Your task to perform on an android device: toggle location history Image 0: 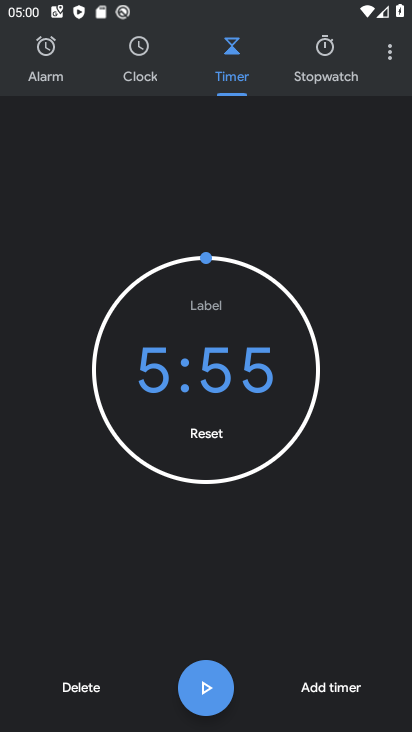
Step 0: drag from (328, 624) to (233, 153)
Your task to perform on an android device: toggle location history Image 1: 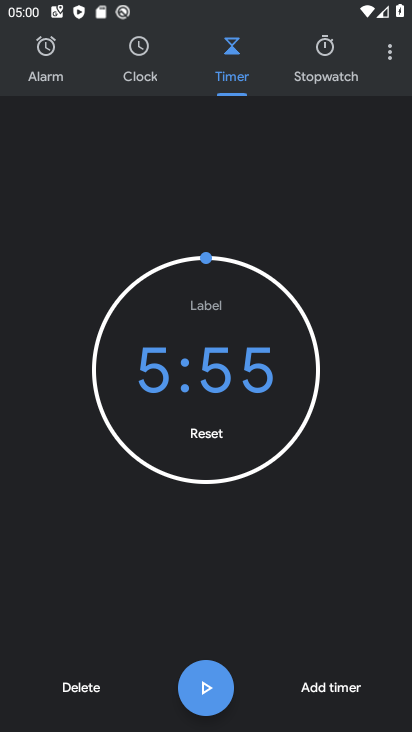
Step 1: click (394, 58)
Your task to perform on an android device: toggle location history Image 2: 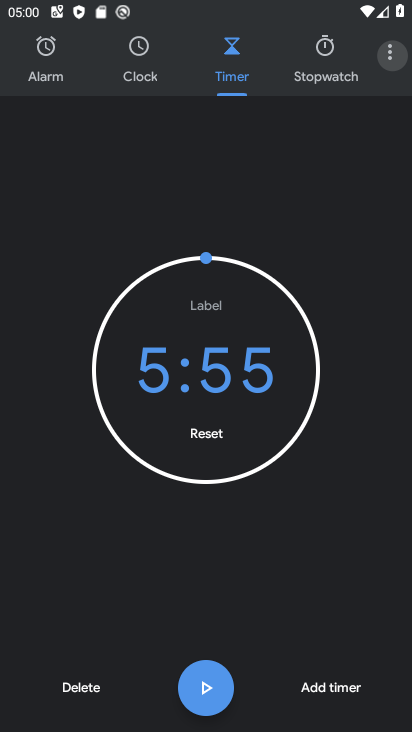
Step 2: click (394, 58)
Your task to perform on an android device: toggle location history Image 3: 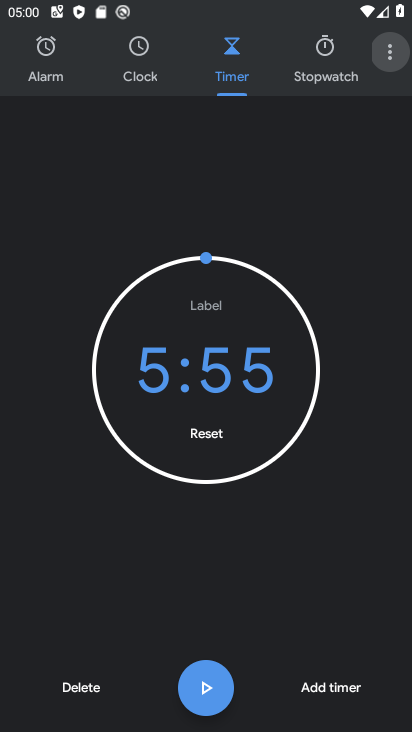
Step 3: click (394, 58)
Your task to perform on an android device: toggle location history Image 4: 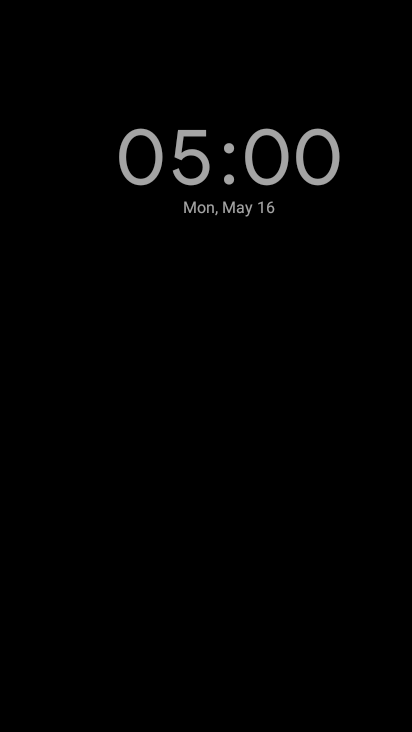
Step 4: press back button
Your task to perform on an android device: toggle location history Image 5: 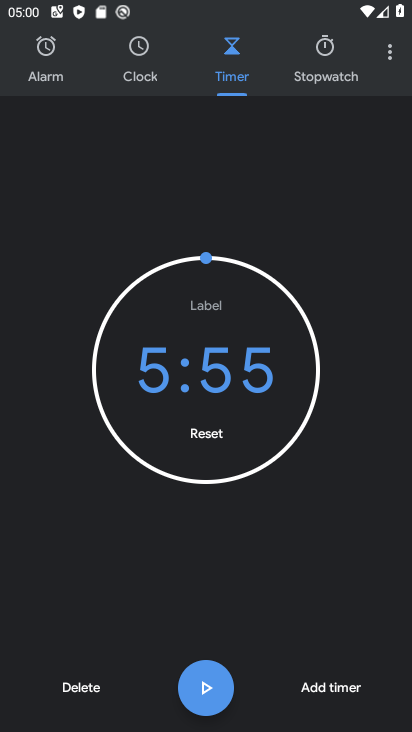
Step 5: click (410, 48)
Your task to perform on an android device: toggle location history Image 6: 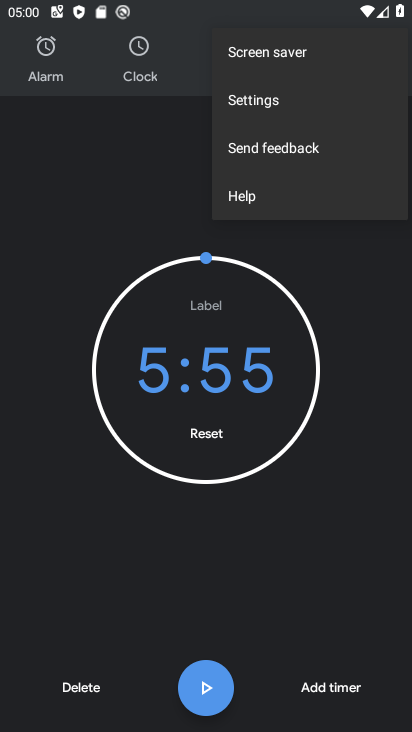
Step 6: click (391, 58)
Your task to perform on an android device: toggle location history Image 7: 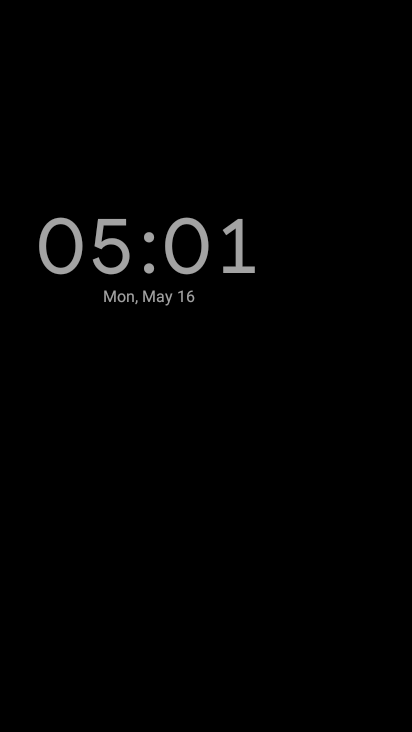
Step 7: press back button
Your task to perform on an android device: toggle location history Image 8: 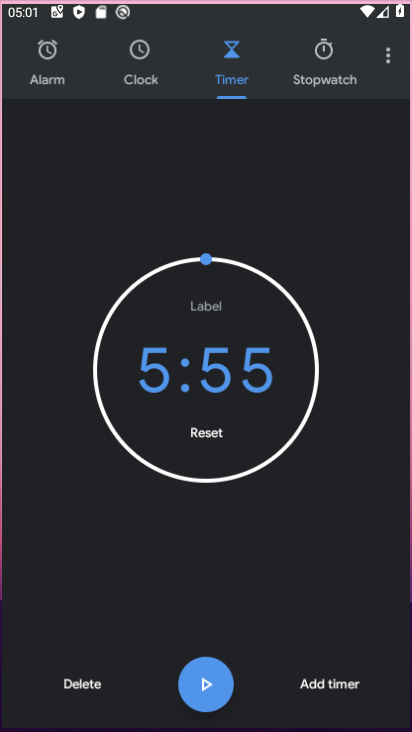
Step 8: drag from (322, 528) to (298, 74)
Your task to perform on an android device: toggle location history Image 9: 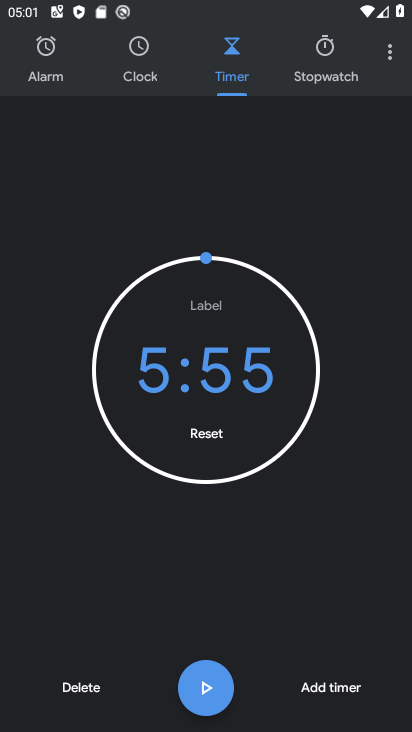
Step 9: click (384, 62)
Your task to perform on an android device: toggle location history Image 10: 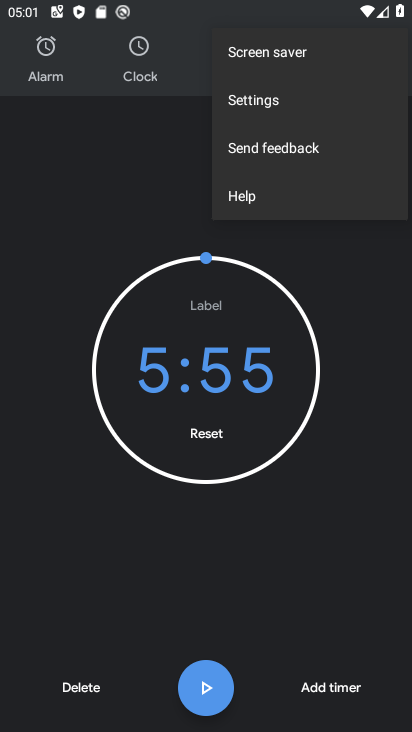
Step 10: click (269, 103)
Your task to perform on an android device: toggle location history Image 11: 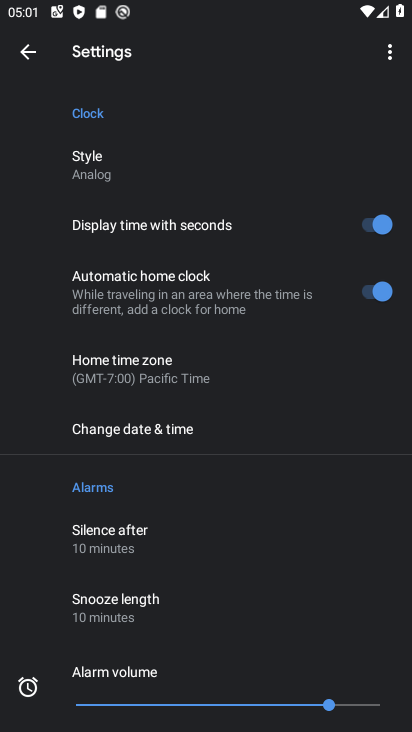
Step 11: press back button
Your task to perform on an android device: toggle location history Image 12: 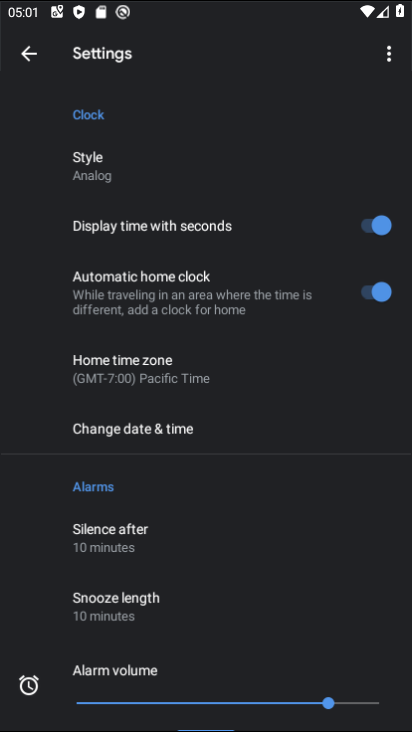
Step 12: press back button
Your task to perform on an android device: toggle location history Image 13: 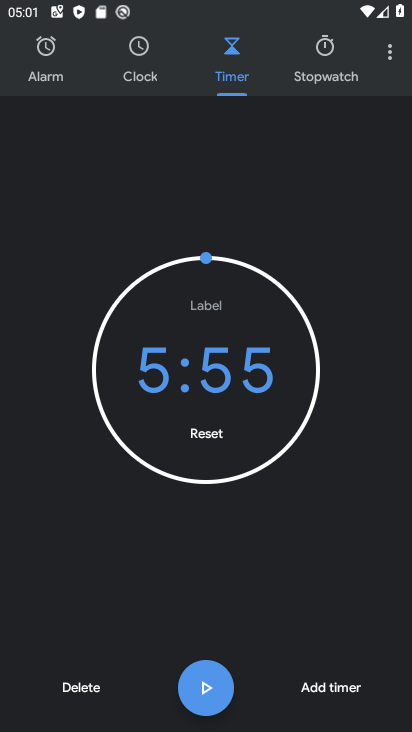
Step 13: press back button
Your task to perform on an android device: toggle location history Image 14: 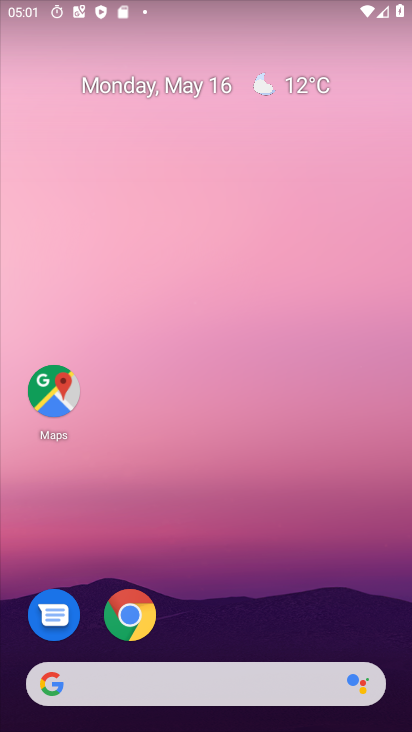
Step 14: drag from (286, 655) to (210, 2)
Your task to perform on an android device: toggle location history Image 15: 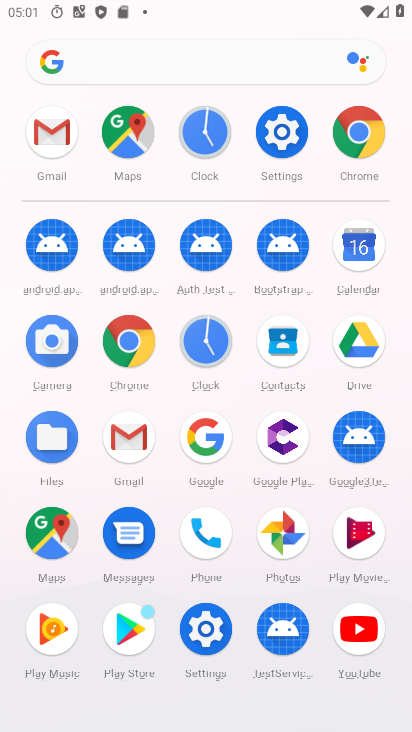
Step 15: click (55, 531)
Your task to perform on an android device: toggle location history Image 16: 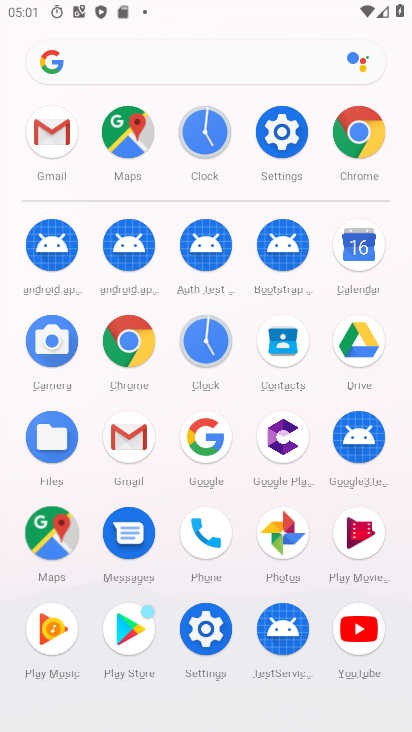
Step 16: click (55, 531)
Your task to perform on an android device: toggle location history Image 17: 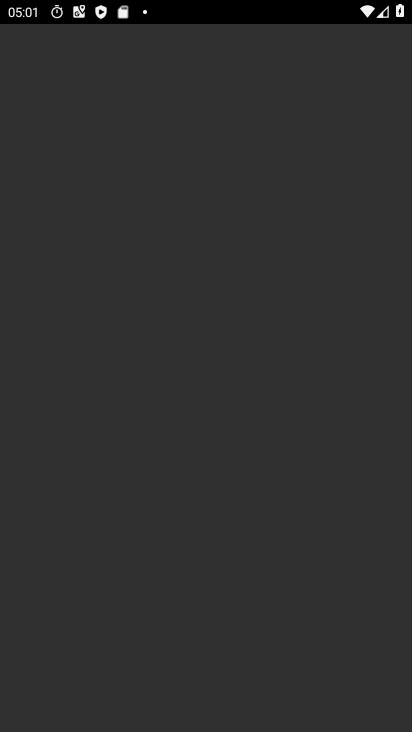
Step 17: click (55, 531)
Your task to perform on an android device: toggle location history Image 18: 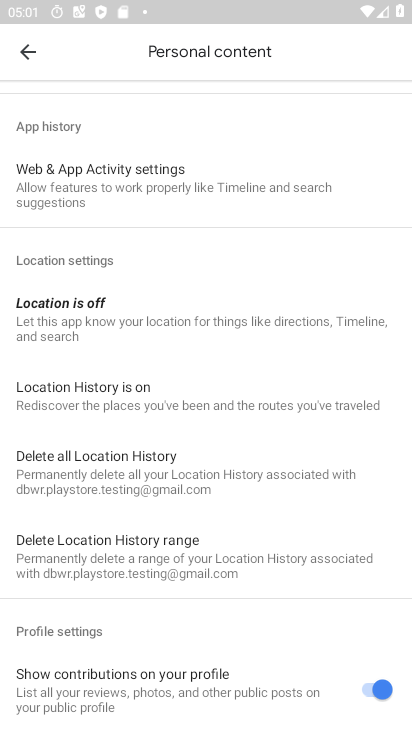
Step 18: click (99, 383)
Your task to perform on an android device: toggle location history Image 19: 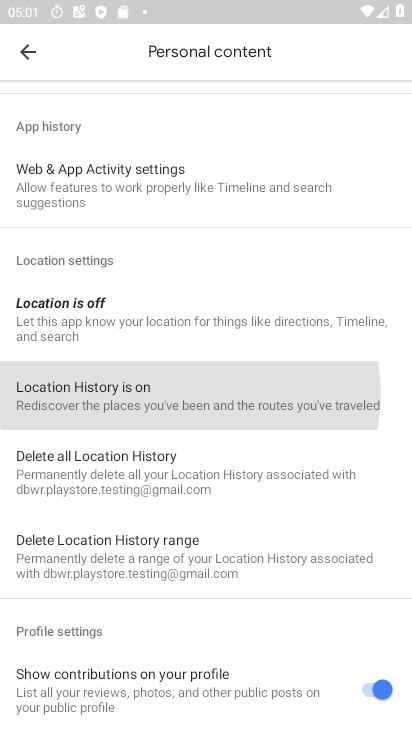
Step 19: click (98, 381)
Your task to perform on an android device: toggle location history Image 20: 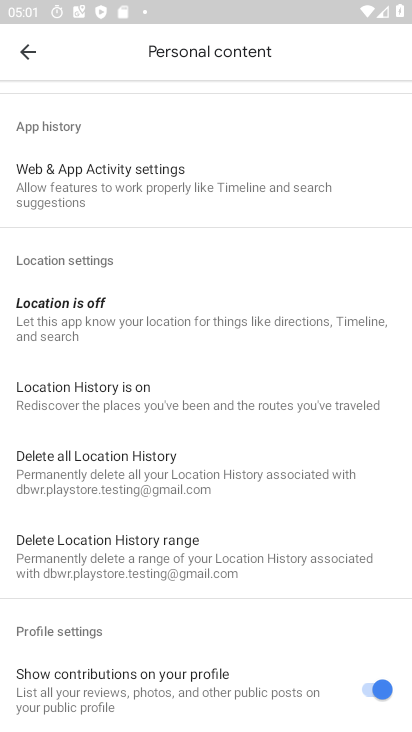
Step 20: click (105, 388)
Your task to perform on an android device: toggle location history Image 21: 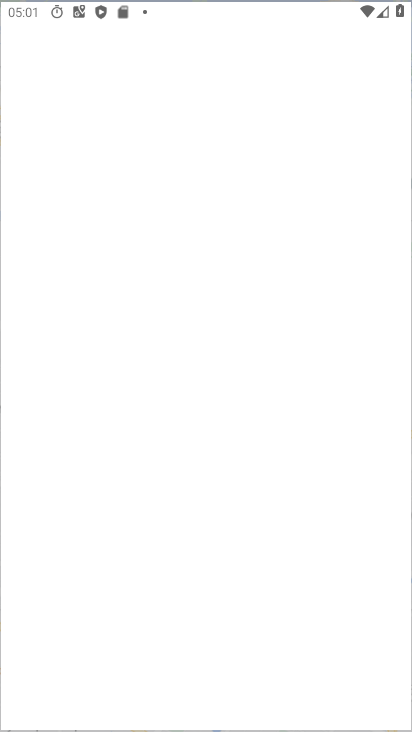
Step 21: click (112, 396)
Your task to perform on an android device: toggle location history Image 22: 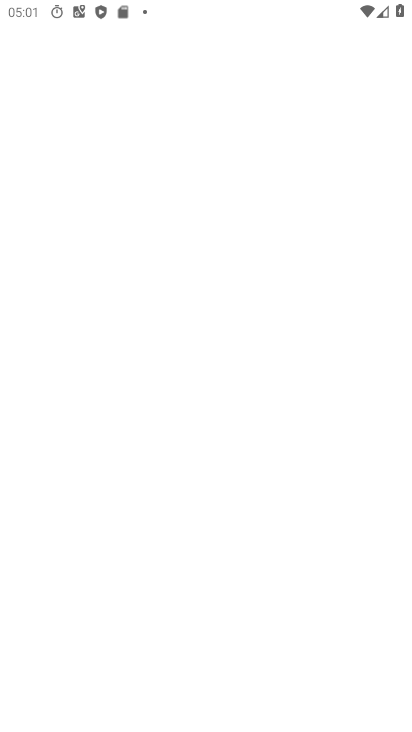
Step 22: click (112, 400)
Your task to perform on an android device: toggle location history Image 23: 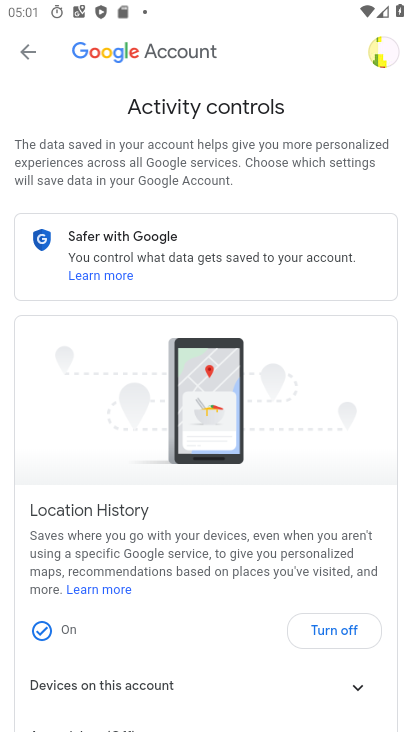
Step 23: drag from (244, 593) to (243, 31)
Your task to perform on an android device: toggle location history Image 24: 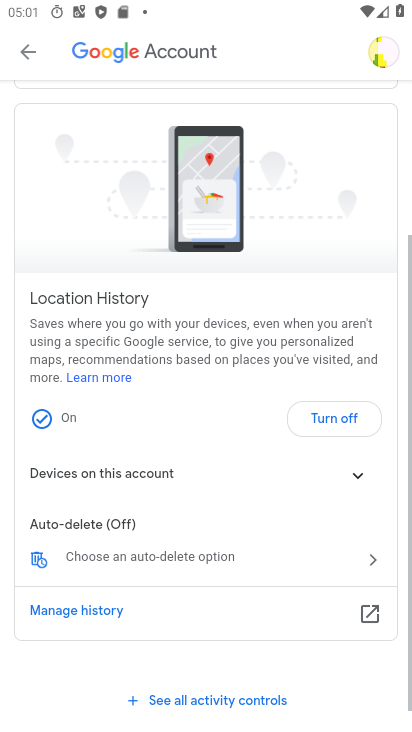
Step 24: drag from (145, 314) to (98, 84)
Your task to perform on an android device: toggle location history Image 25: 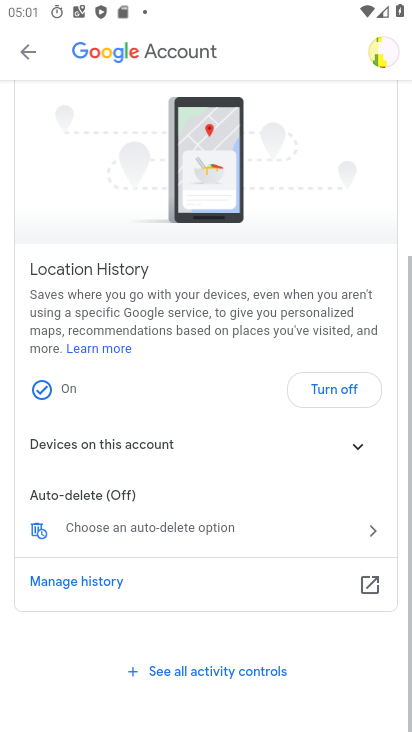
Step 25: drag from (129, 146) to (72, 83)
Your task to perform on an android device: toggle location history Image 26: 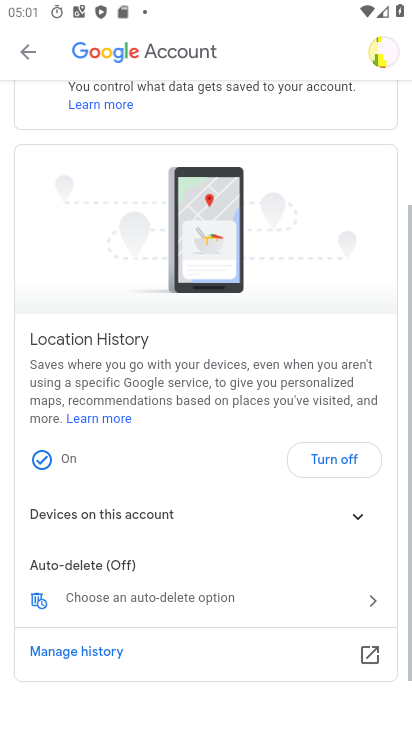
Step 26: drag from (107, 333) to (123, 54)
Your task to perform on an android device: toggle location history Image 27: 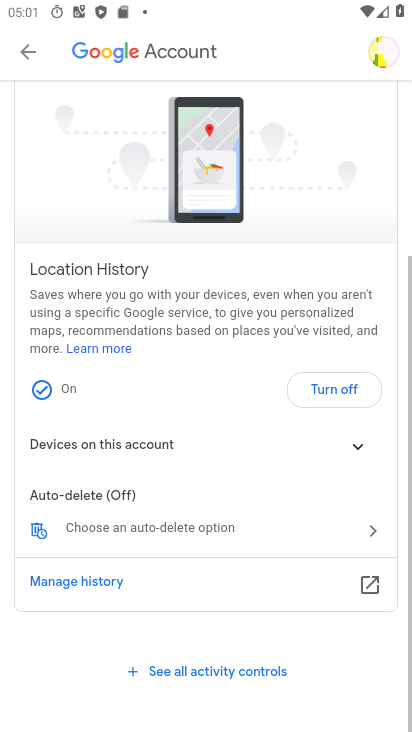
Step 27: drag from (189, 351) to (169, 73)
Your task to perform on an android device: toggle location history Image 28: 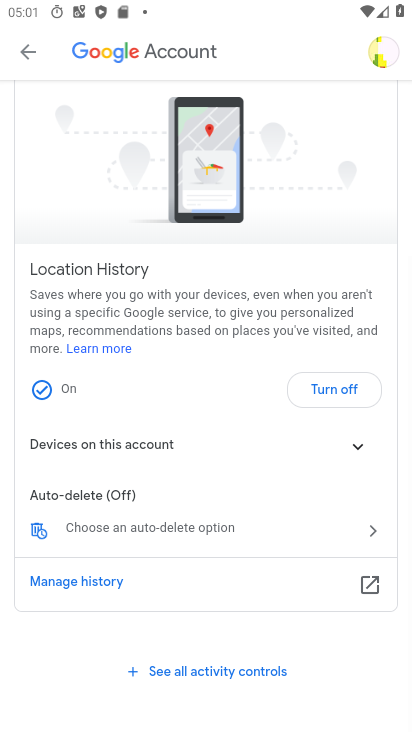
Step 28: drag from (177, 380) to (192, 8)
Your task to perform on an android device: toggle location history Image 29: 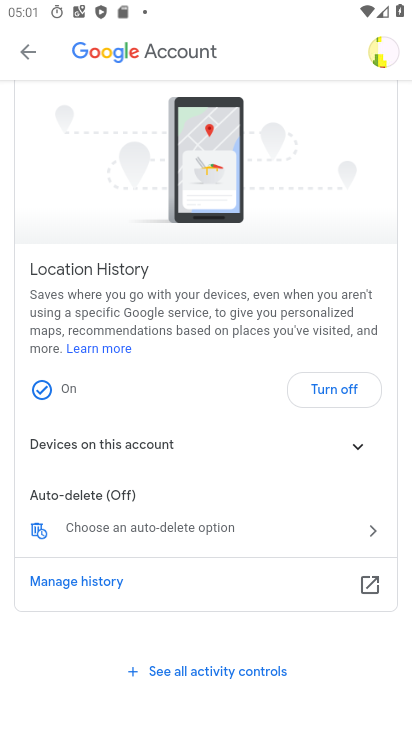
Step 29: drag from (117, 407) to (158, 18)
Your task to perform on an android device: toggle location history Image 30: 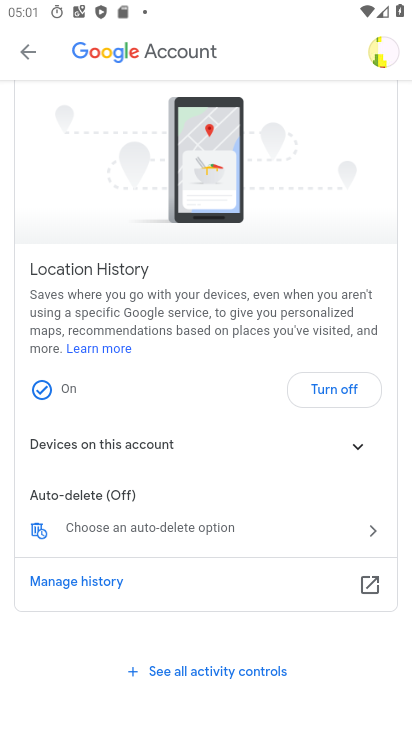
Step 30: click (322, 388)
Your task to perform on an android device: toggle location history Image 31: 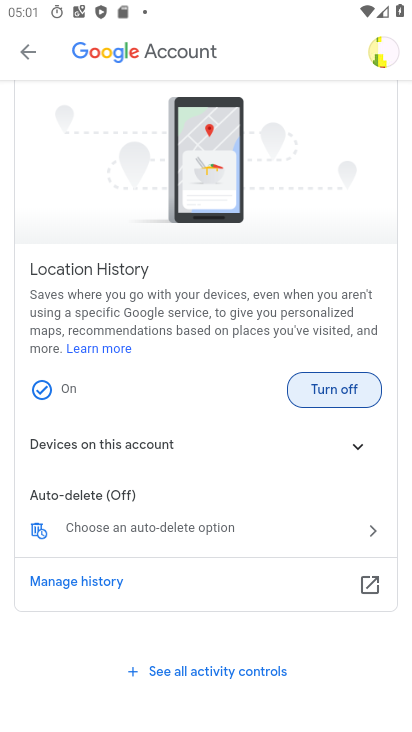
Step 31: click (337, 394)
Your task to perform on an android device: toggle location history Image 32: 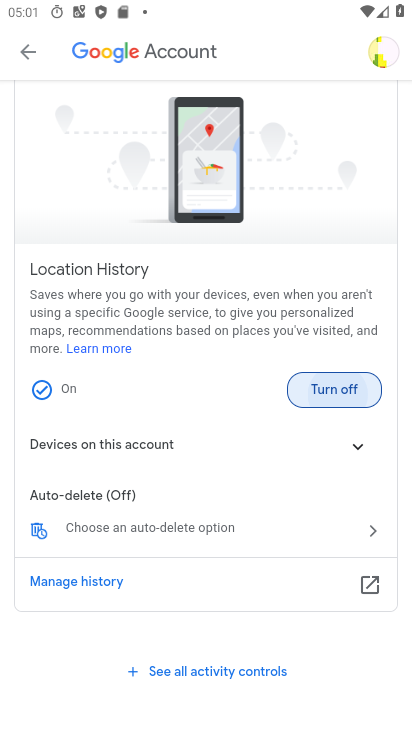
Step 32: click (337, 394)
Your task to perform on an android device: toggle location history Image 33: 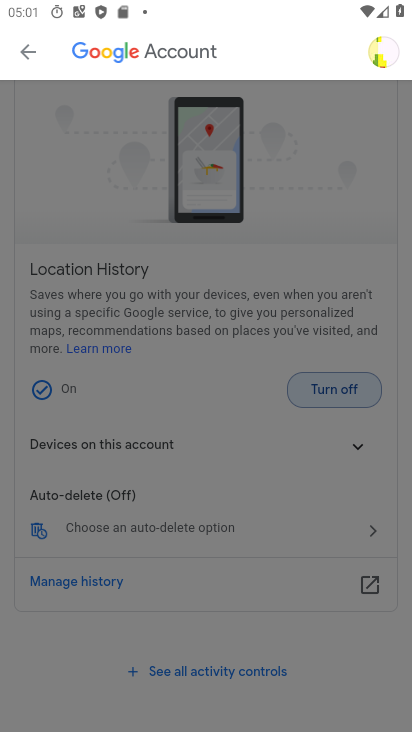
Step 33: click (337, 394)
Your task to perform on an android device: toggle location history Image 34: 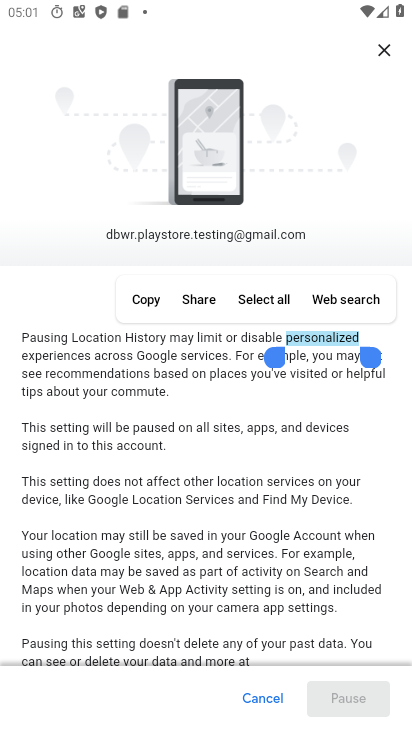
Step 34: click (320, 335)
Your task to perform on an android device: toggle location history Image 35: 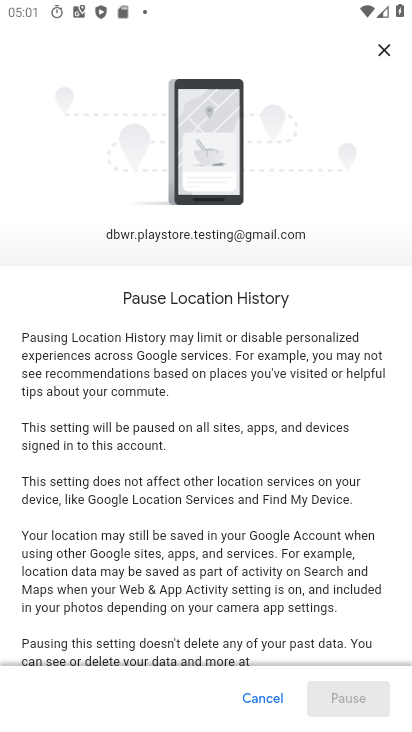
Step 35: drag from (285, 521) to (260, 51)
Your task to perform on an android device: toggle location history Image 36: 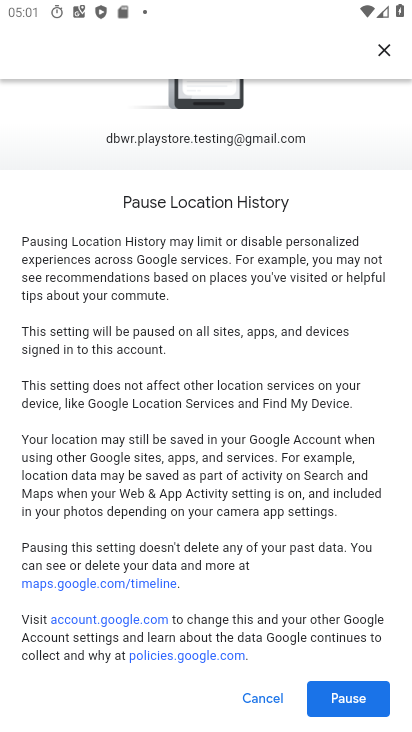
Step 36: drag from (260, 406) to (306, 91)
Your task to perform on an android device: toggle location history Image 37: 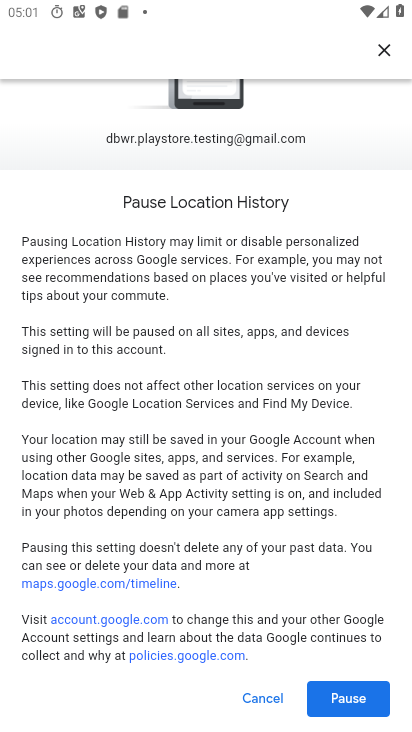
Step 37: click (352, 706)
Your task to perform on an android device: toggle location history Image 38: 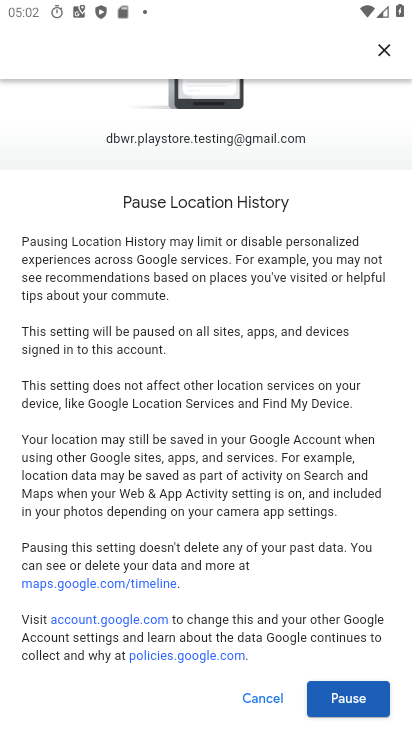
Step 38: task complete